Your task to perform on an android device: open app "YouTube Kids" (install if not already installed) Image 0: 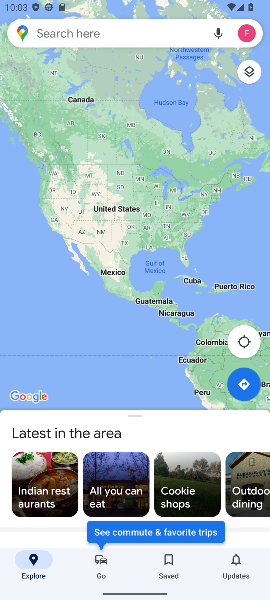
Step 0: press home button
Your task to perform on an android device: open app "YouTube Kids" (install if not already installed) Image 1: 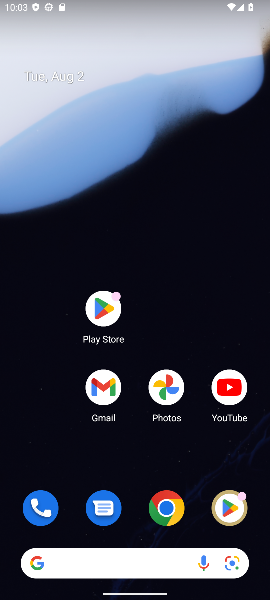
Step 1: task complete